Your task to perform on an android device: Open my contact list Image 0: 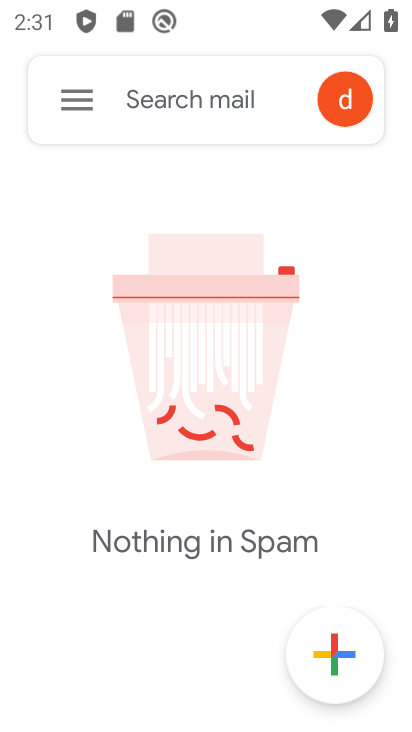
Step 0: press home button
Your task to perform on an android device: Open my contact list Image 1: 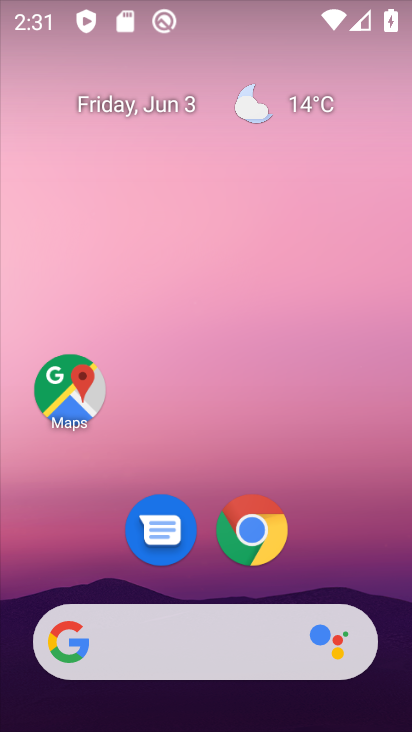
Step 1: drag from (86, 590) to (182, 192)
Your task to perform on an android device: Open my contact list Image 2: 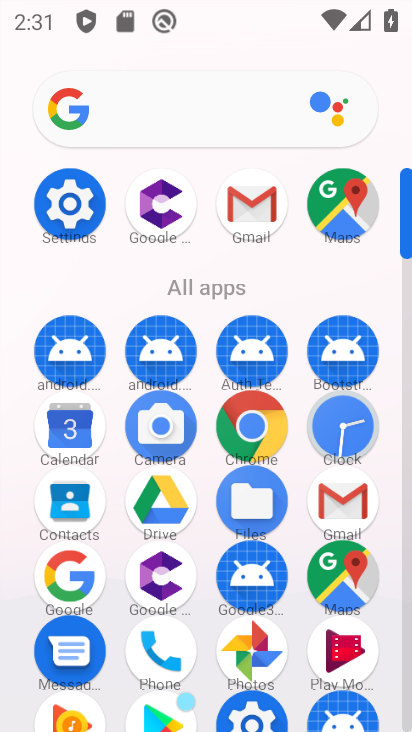
Step 2: drag from (186, 606) to (234, 358)
Your task to perform on an android device: Open my contact list Image 3: 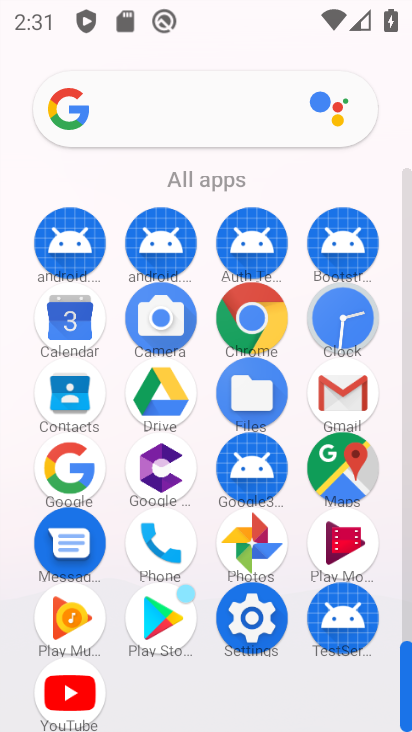
Step 3: click (78, 383)
Your task to perform on an android device: Open my contact list Image 4: 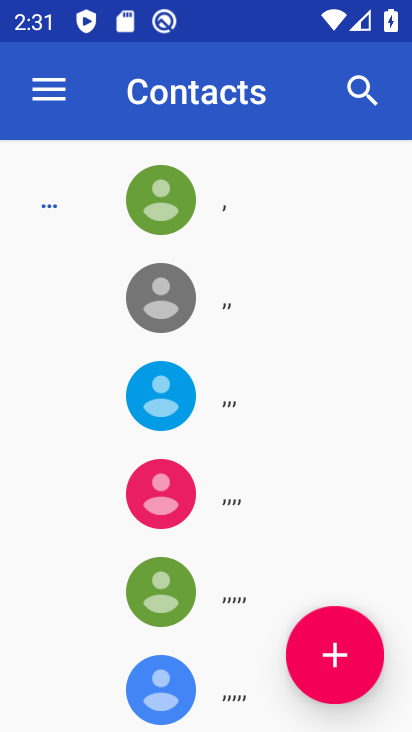
Step 4: task complete